Your task to perform on an android device: Open battery settings Image 0: 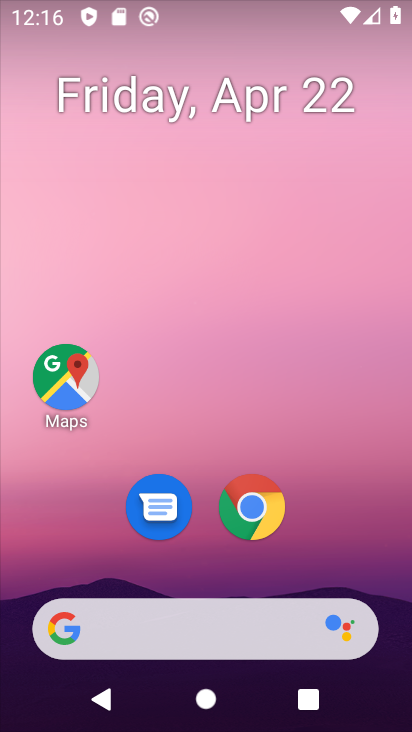
Step 0: press home button
Your task to perform on an android device: Open battery settings Image 1: 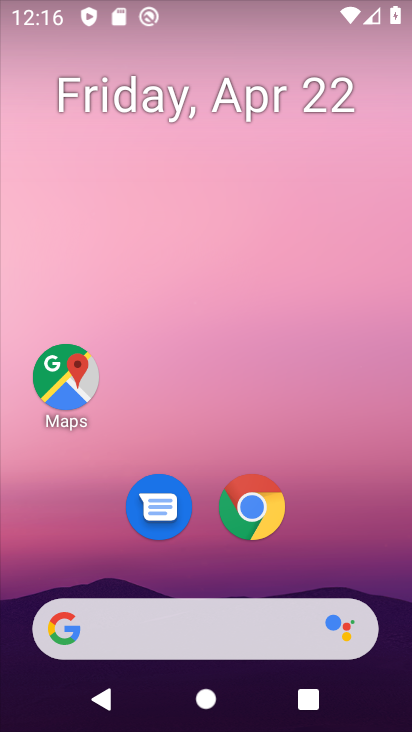
Step 1: drag from (337, 525) to (258, 79)
Your task to perform on an android device: Open battery settings Image 2: 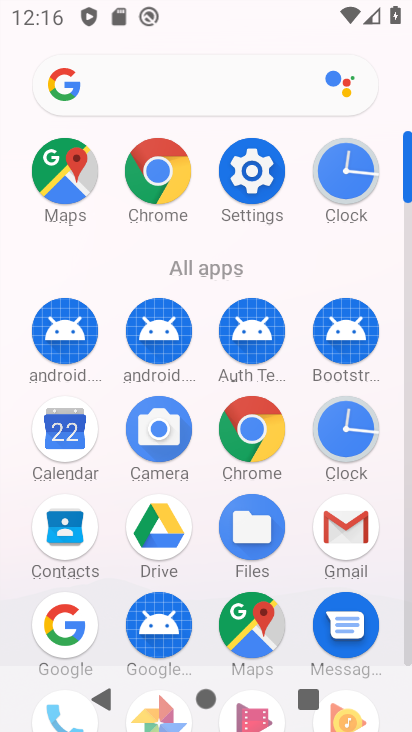
Step 2: click (259, 180)
Your task to perform on an android device: Open battery settings Image 3: 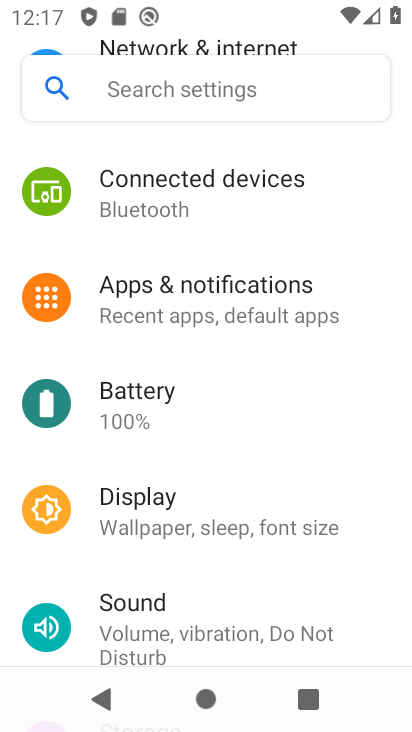
Step 3: click (127, 408)
Your task to perform on an android device: Open battery settings Image 4: 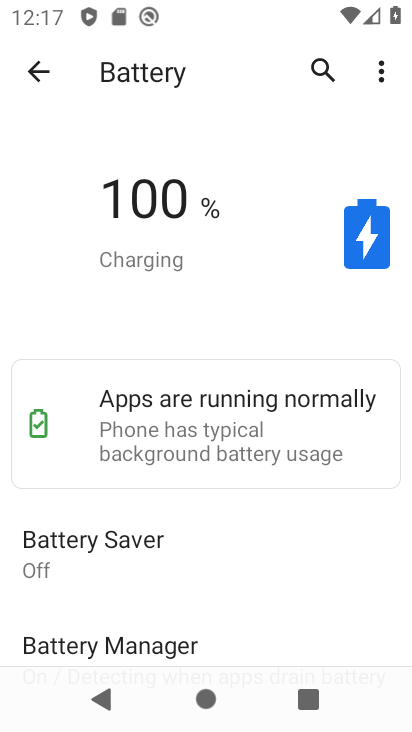
Step 4: task complete